Your task to perform on an android device: toggle pop-ups in chrome Image 0: 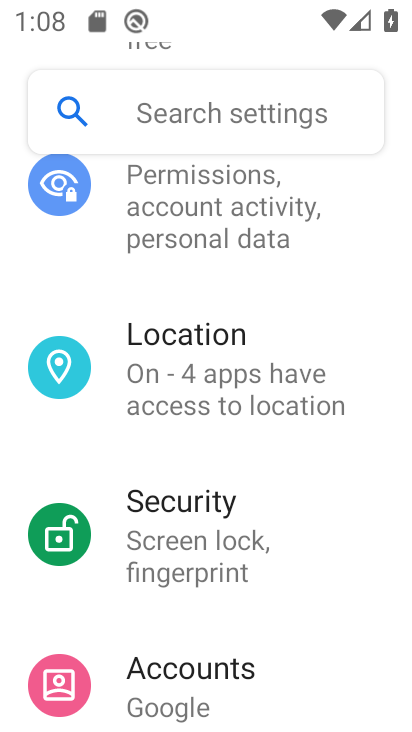
Step 0: press home button
Your task to perform on an android device: toggle pop-ups in chrome Image 1: 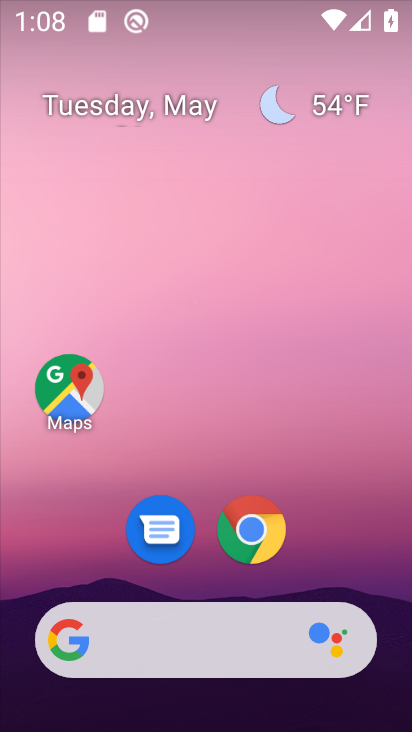
Step 1: drag from (321, 580) to (305, 258)
Your task to perform on an android device: toggle pop-ups in chrome Image 2: 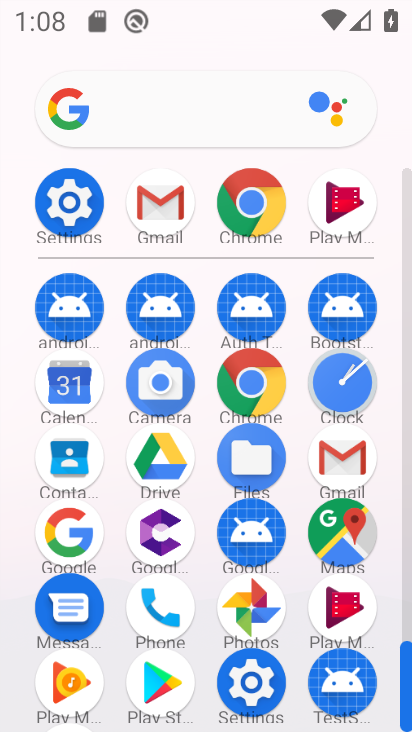
Step 2: click (258, 186)
Your task to perform on an android device: toggle pop-ups in chrome Image 3: 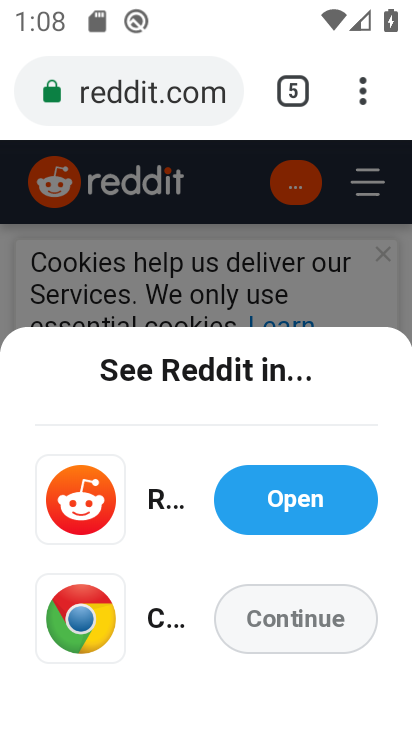
Step 3: click (378, 77)
Your task to perform on an android device: toggle pop-ups in chrome Image 4: 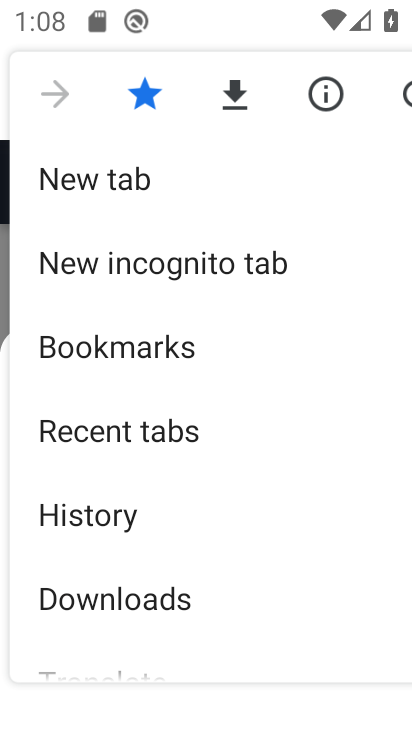
Step 4: drag from (176, 602) to (198, 310)
Your task to perform on an android device: toggle pop-ups in chrome Image 5: 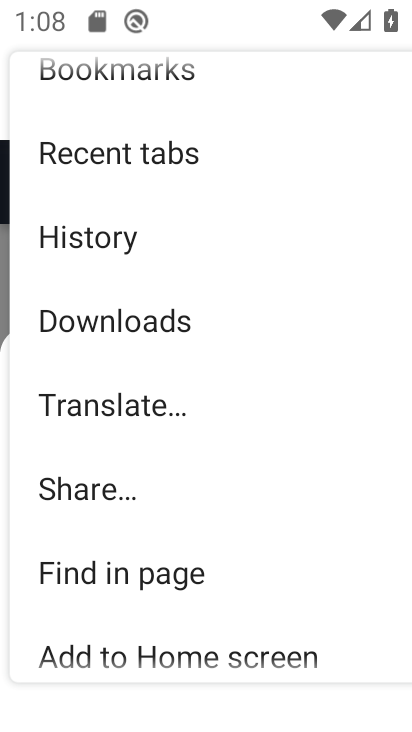
Step 5: drag from (181, 613) to (225, 269)
Your task to perform on an android device: toggle pop-ups in chrome Image 6: 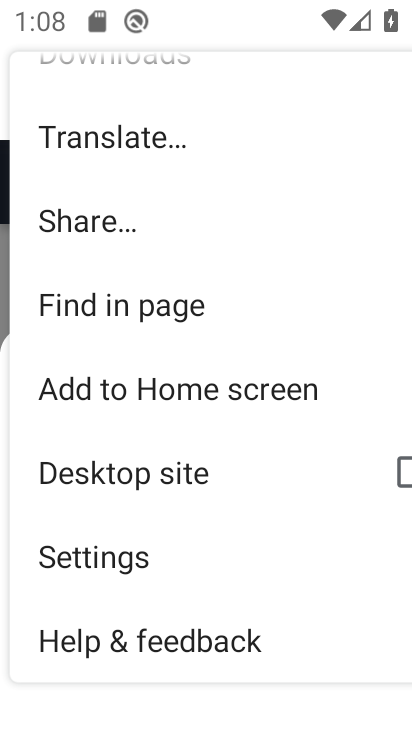
Step 6: drag from (132, 609) to (205, 304)
Your task to perform on an android device: toggle pop-ups in chrome Image 7: 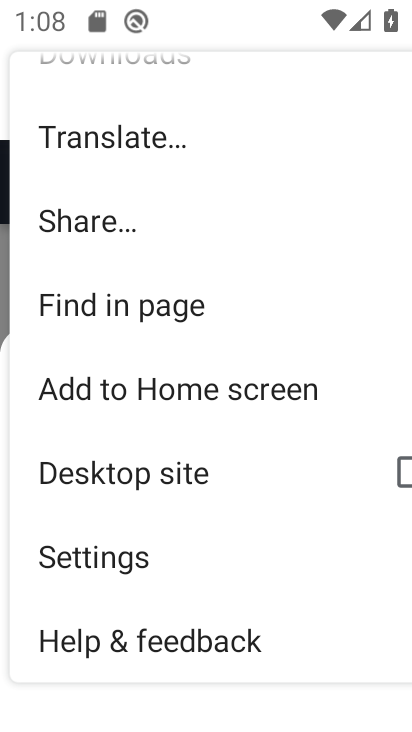
Step 7: click (162, 549)
Your task to perform on an android device: toggle pop-ups in chrome Image 8: 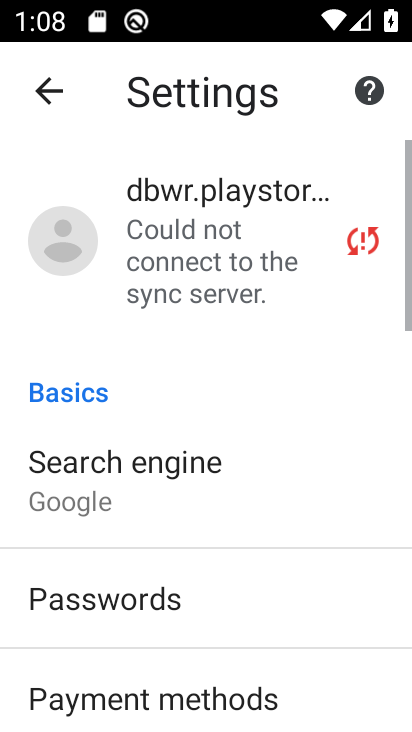
Step 8: drag from (214, 587) to (254, 205)
Your task to perform on an android device: toggle pop-ups in chrome Image 9: 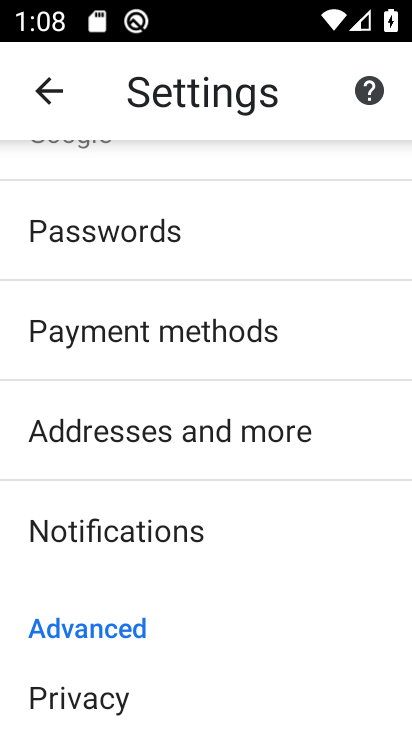
Step 9: drag from (190, 586) to (255, 248)
Your task to perform on an android device: toggle pop-ups in chrome Image 10: 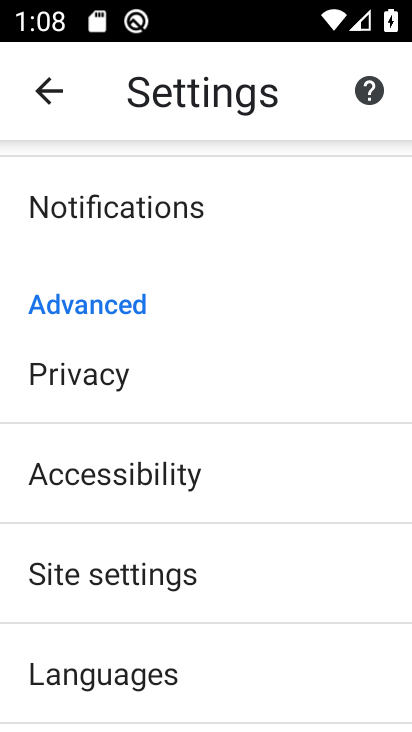
Step 10: drag from (191, 629) to (240, 269)
Your task to perform on an android device: toggle pop-ups in chrome Image 11: 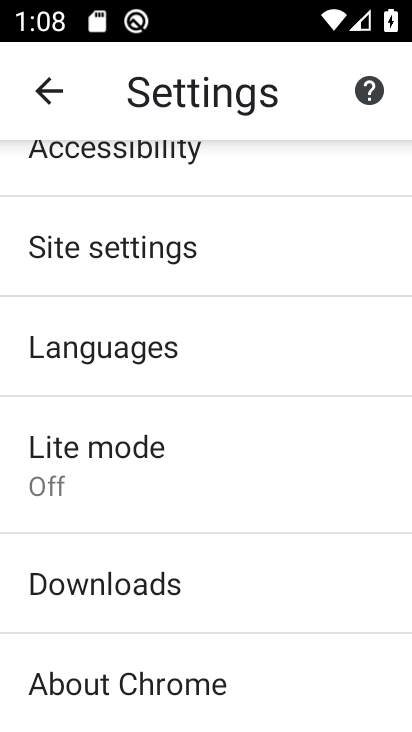
Step 11: drag from (219, 617) to (240, 382)
Your task to perform on an android device: toggle pop-ups in chrome Image 12: 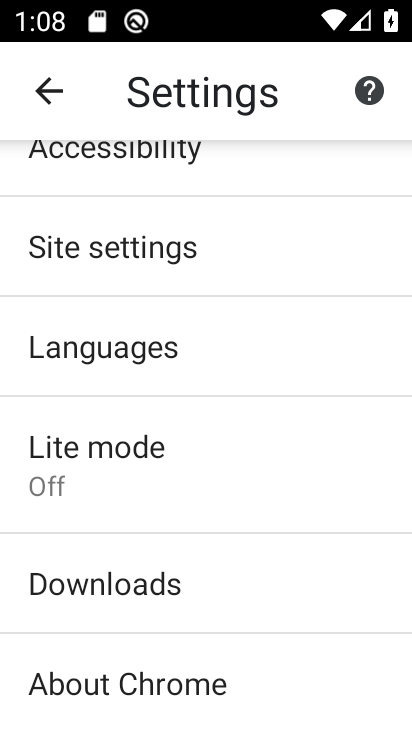
Step 12: click (201, 244)
Your task to perform on an android device: toggle pop-ups in chrome Image 13: 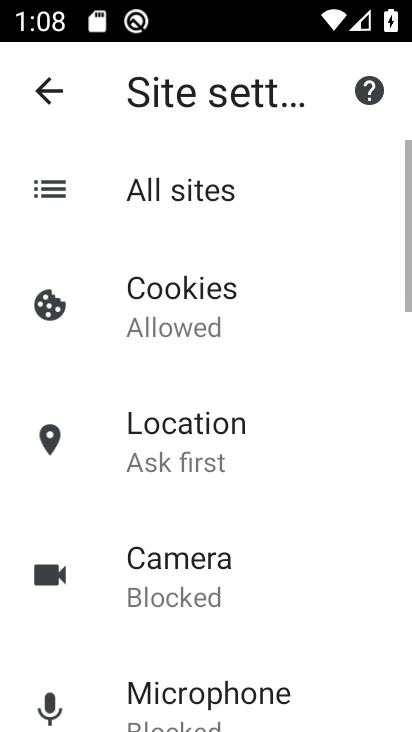
Step 13: drag from (239, 589) to (284, 251)
Your task to perform on an android device: toggle pop-ups in chrome Image 14: 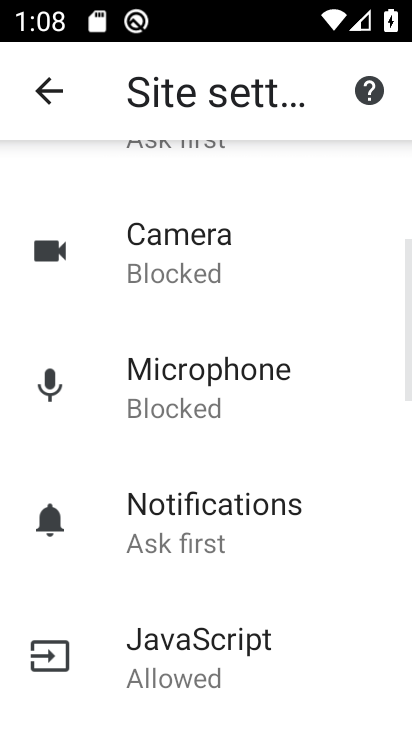
Step 14: drag from (213, 623) to (259, 316)
Your task to perform on an android device: toggle pop-ups in chrome Image 15: 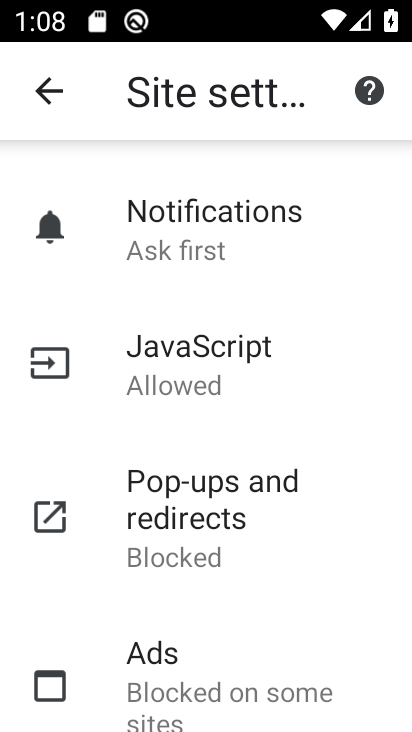
Step 15: click (187, 523)
Your task to perform on an android device: toggle pop-ups in chrome Image 16: 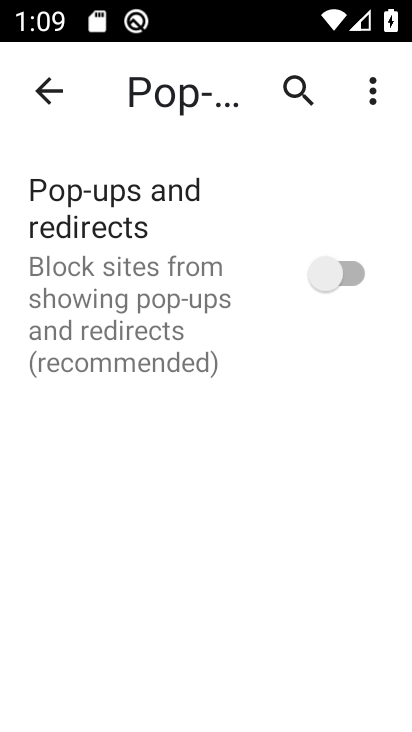
Step 16: task complete